Your task to perform on an android device: install app "Etsy: Buy & Sell Unique Items" Image 0: 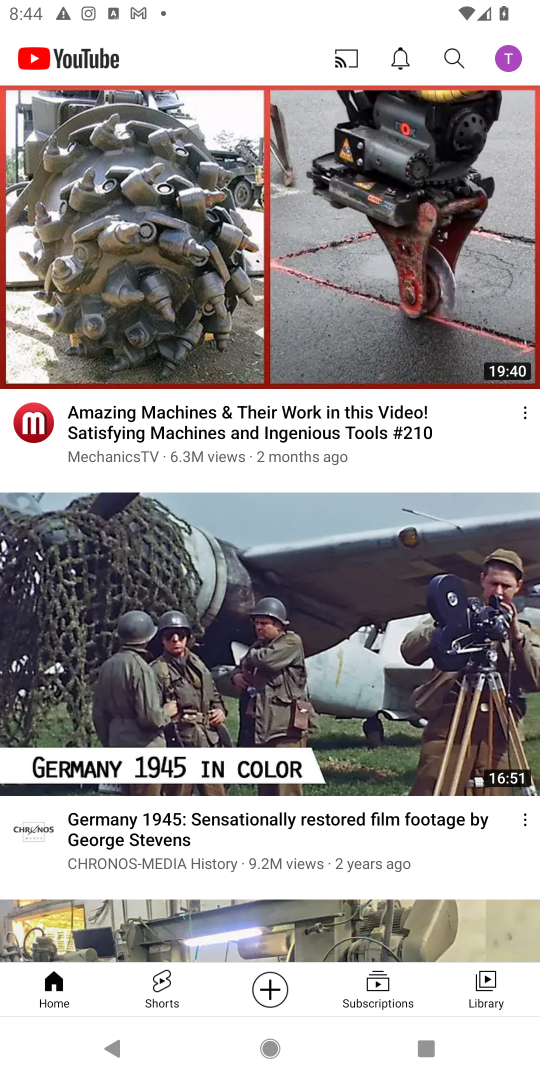
Step 0: press home button
Your task to perform on an android device: install app "Etsy: Buy & Sell Unique Items" Image 1: 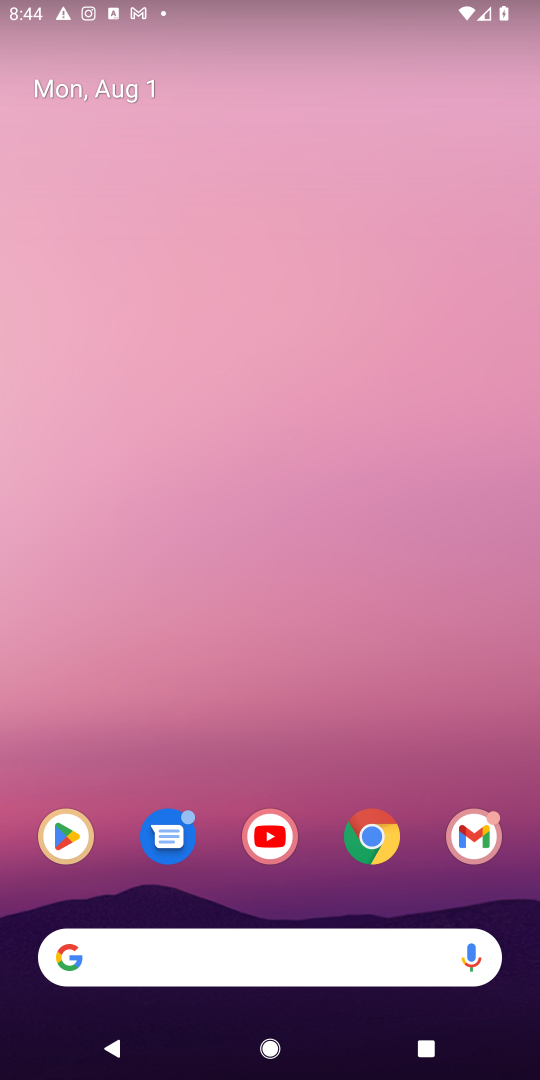
Step 1: click (77, 838)
Your task to perform on an android device: install app "Etsy: Buy & Sell Unique Items" Image 2: 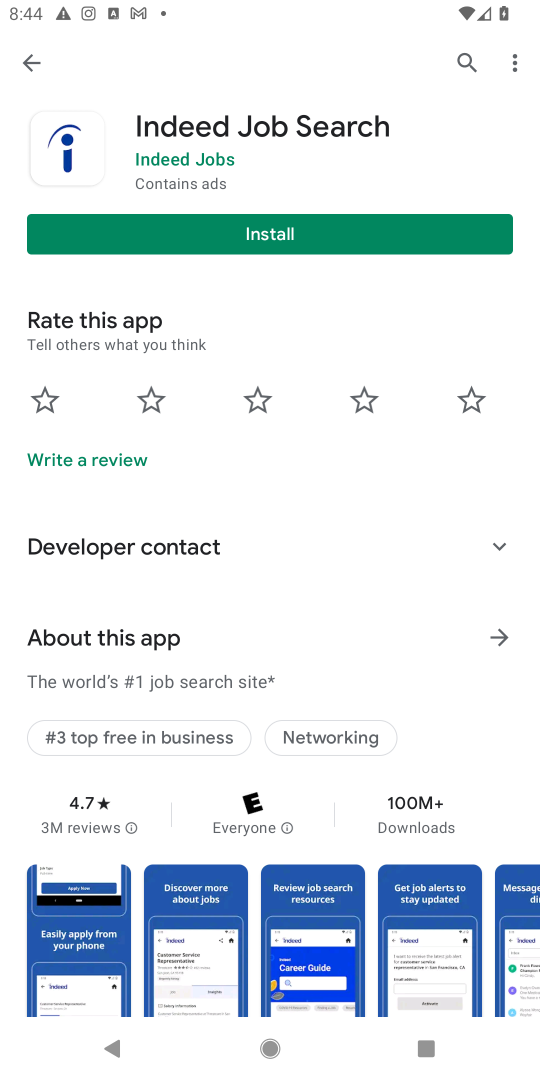
Step 2: click (457, 62)
Your task to perform on an android device: install app "Etsy: Buy & Sell Unique Items" Image 3: 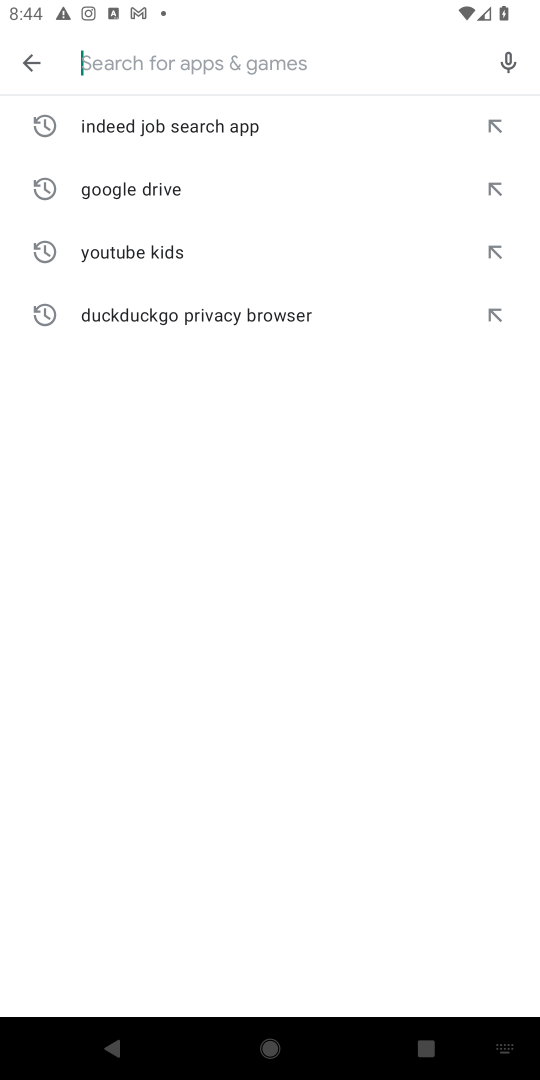
Step 3: type "Etsy: Buy & Sell Unique Items"
Your task to perform on an android device: install app "Etsy: Buy & Sell Unique Items" Image 4: 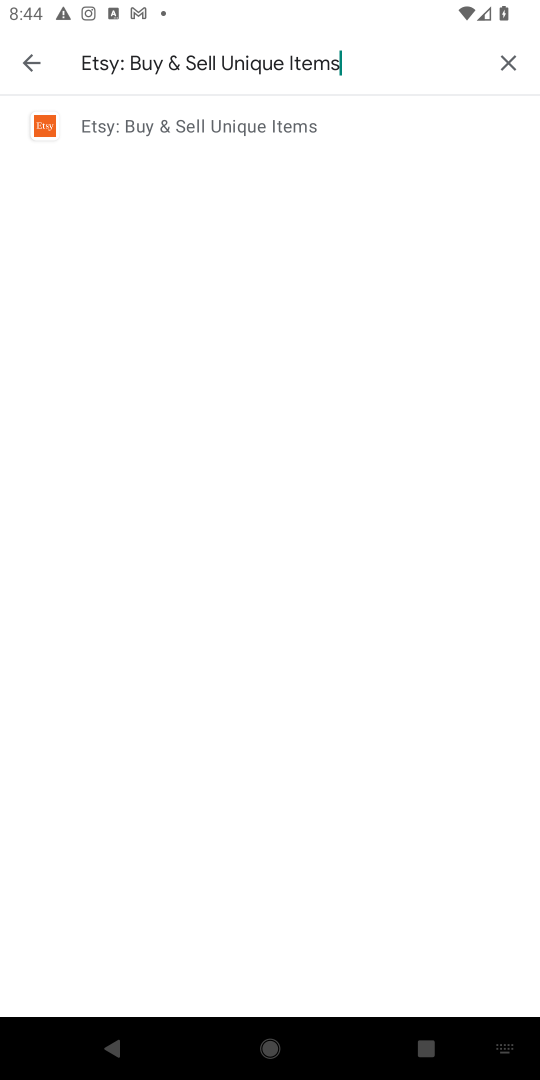
Step 4: click (189, 119)
Your task to perform on an android device: install app "Etsy: Buy & Sell Unique Items" Image 5: 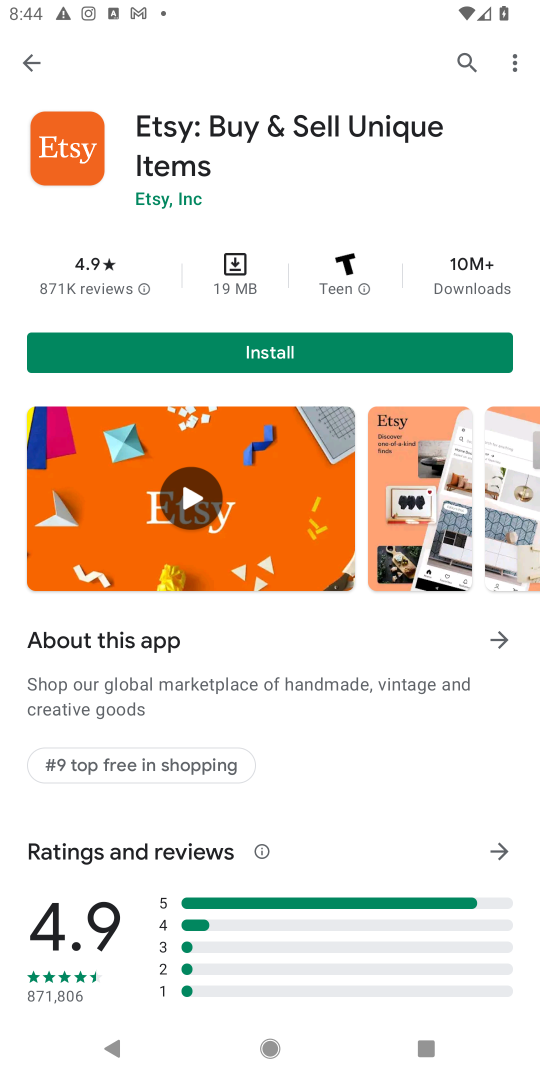
Step 5: click (272, 350)
Your task to perform on an android device: install app "Etsy: Buy & Sell Unique Items" Image 6: 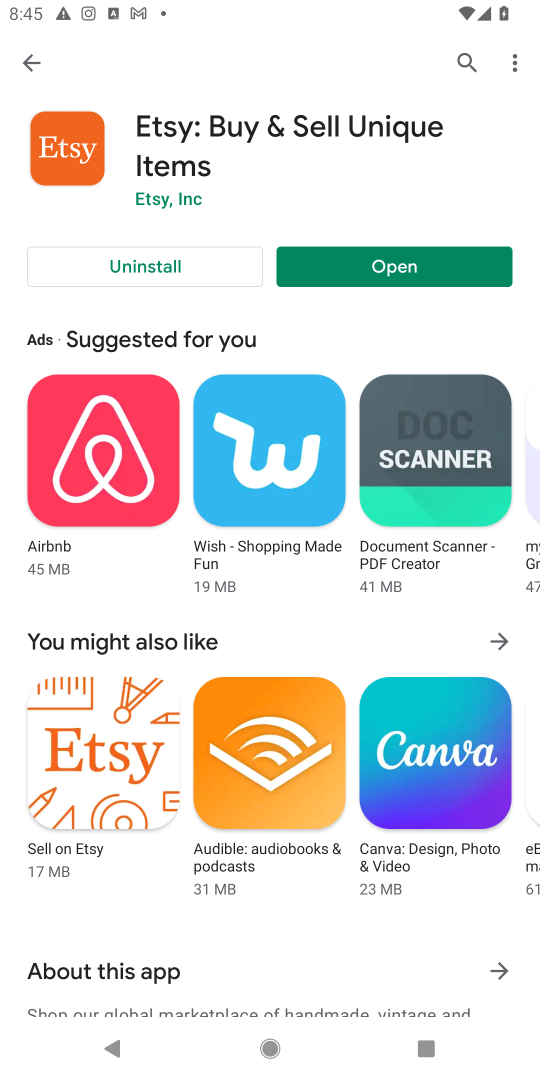
Step 6: task complete